Your task to perform on an android device: toggle airplane mode Image 0: 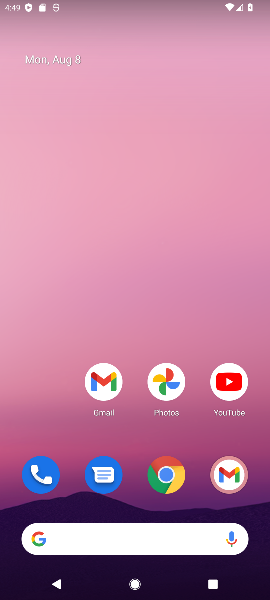
Step 0: press home button
Your task to perform on an android device: toggle airplane mode Image 1: 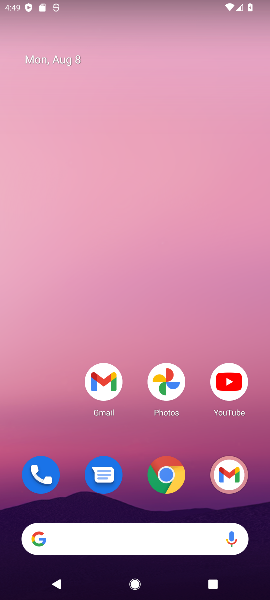
Step 1: drag from (52, 440) to (65, 199)
Your task to perform on an android device: toggle airplane mode Image 2: 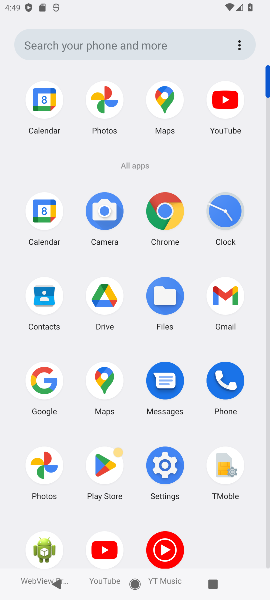
Step 2: click (168, 470)
Your task to perform on an android device: toggle airplane mode Image 3: 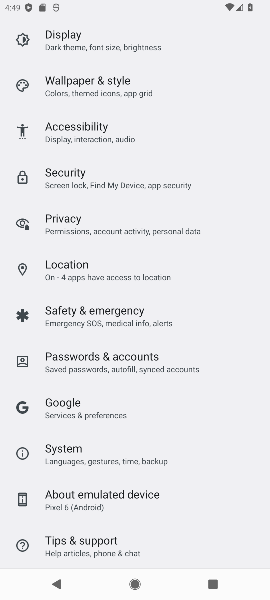
Step 3: drag from (227, 245) to (234, 302)
Your task to perform on an android device: toggle airplane mode Image 4: 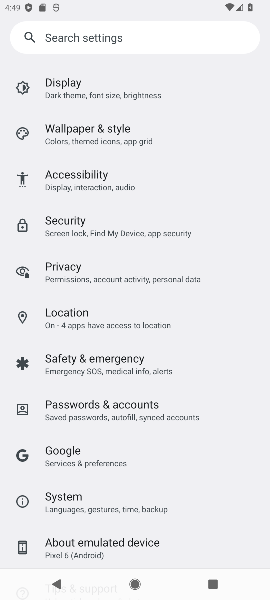
Step 4: drag from (234, 223) to (226, 268)
Your task to perform on an android device: toggle airplane mode Image 5: 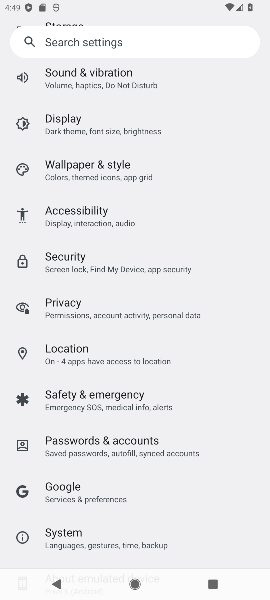
Step 5: drag from (216, 205) to (225, 262)
Your task to perform on an android device: toggle airplane mode Image 6: 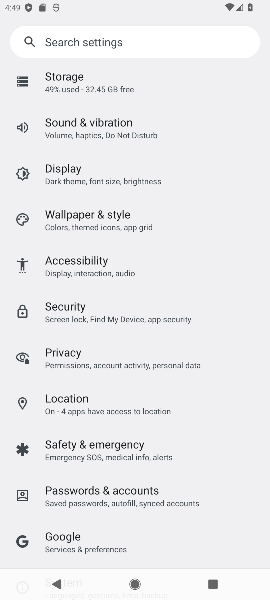
Step 6: drag from (224, 161) to (224, 256)
Your task to perform on an android device: toggle airplane mode Image 7: 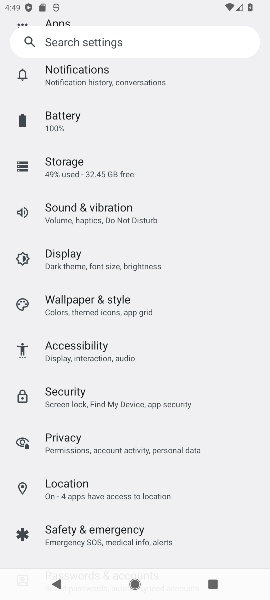
Step 7: drag from (231, 163) to (235, 253)
Your task to perform on an android device: toggle airplane mode Image 8: 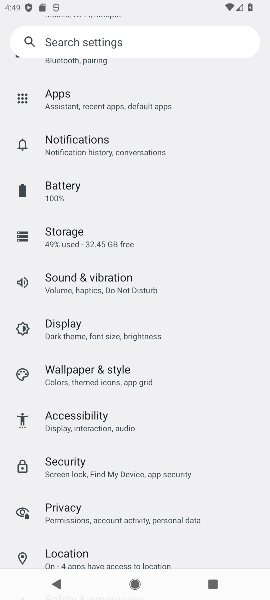
Step 8: drag from (222, 128) to (223, 225)
Your task to perform on an android device: toggle airplane mode Image 9: 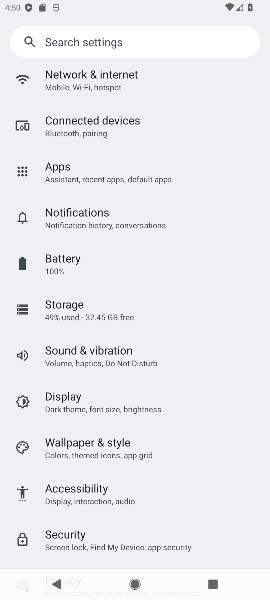
Step 9: drag from (227, 122) to (231, 220)
Your task to perform on an android device: toggle airplane mode Image 10: 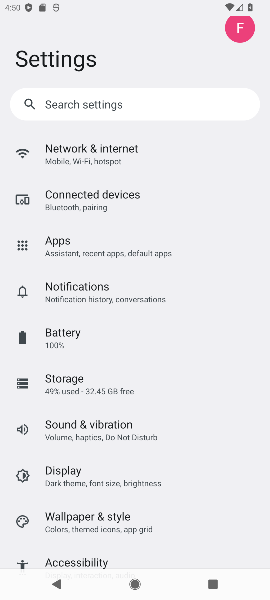
Step 10: click (174, 147)
Your task to perform on an android device: toggle airplane mode Image 11: 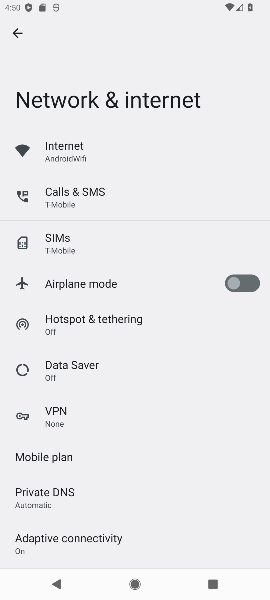
Step 11: click (233, 280)
Your task to perform on an android device: toggle airplane mode Image 12: 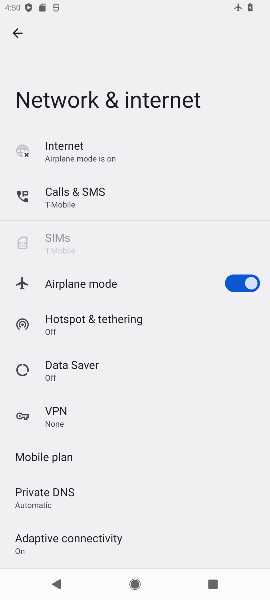
Step 12: task complete